Your task to perform on an android device: clear history in the chrome app Image 0: 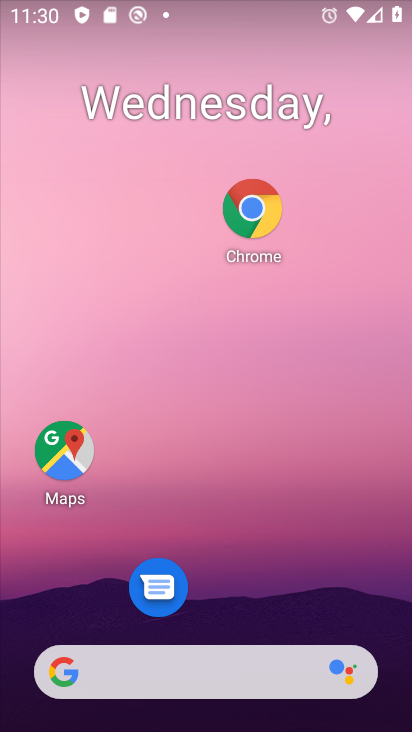
Step 0: click (255, 238)
Your task to perform on an android device: clear history in the chrome app Image 1: 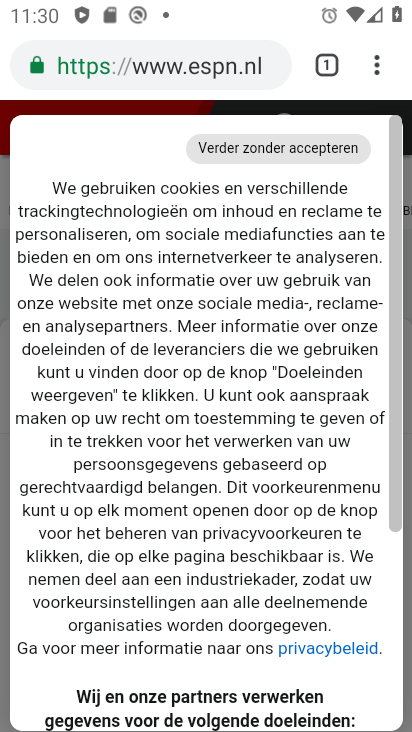
Step 1: click (374, 73)
Your task to perform on an android device: clear history in the chrome app Image 2: 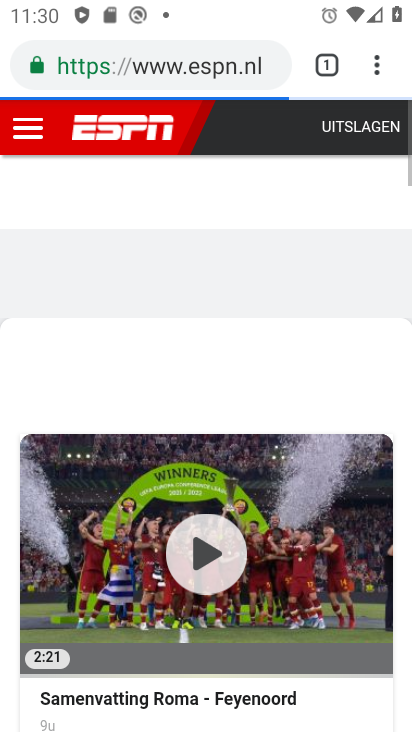
Step 2: click (378, 65)
Your task to perform on an android device: clear history in the chrome app Image 3: 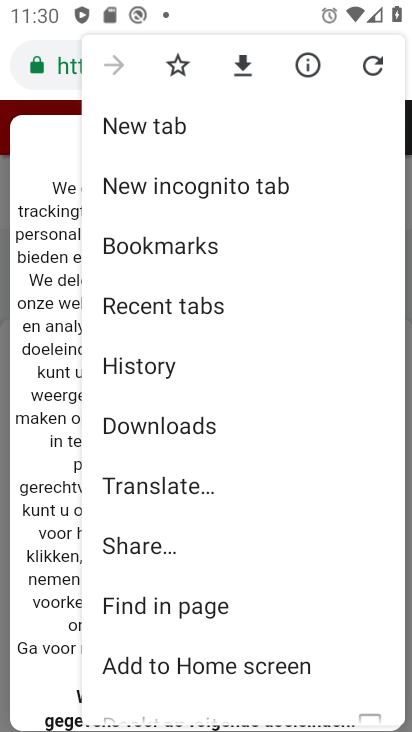
Step 3: click (161, 374)
Your task to perform on an android device: clear history in the chrome app Image 4: 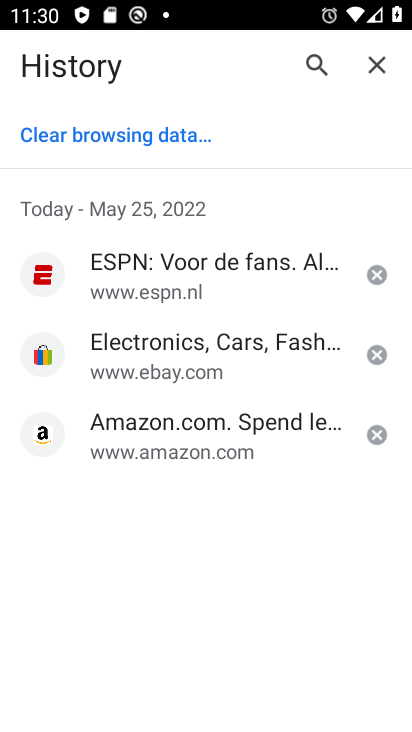
Step 4: click (81, 129)
Your task to perform on an android device: clear history in the chrome app Image 5: 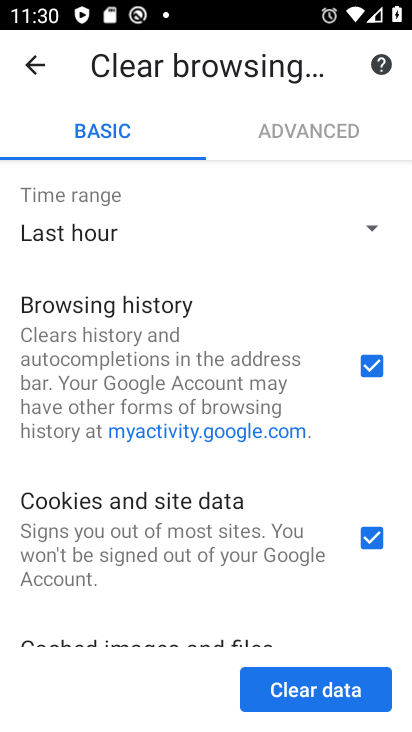
Step 5: drag from (275, 602) to (291, 414)
Your task to perform on an android device: clear history in the chrome app Image 6: 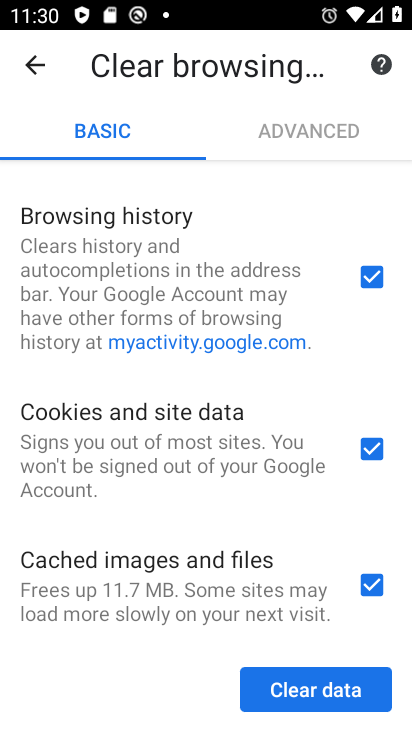
Step 6: click (298, 688)
Your task to perform on an android device: clear history in the chrome app Image 7: 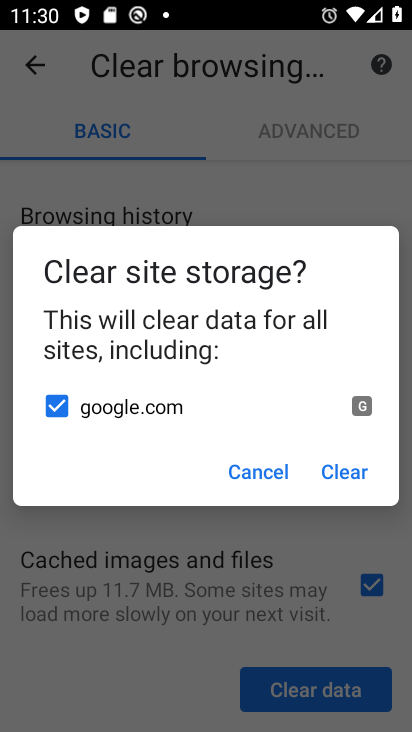
Step 7: click (336, 467)
Your task to perform on an android device: clear history in the chrome app Image 8: 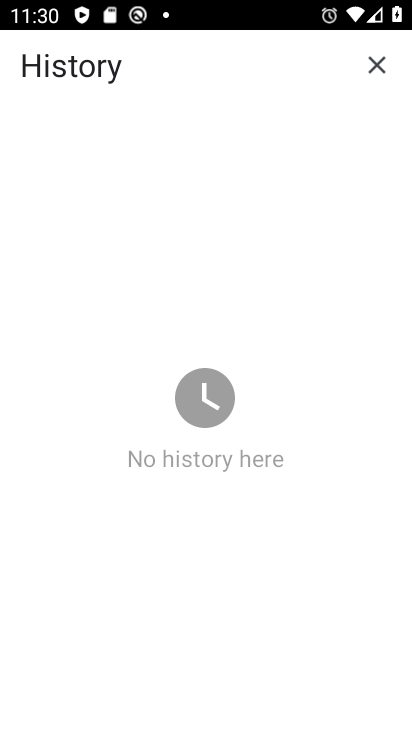
Step 8: task complete